Your task to perform on an android device: turn on wifi Image 0: 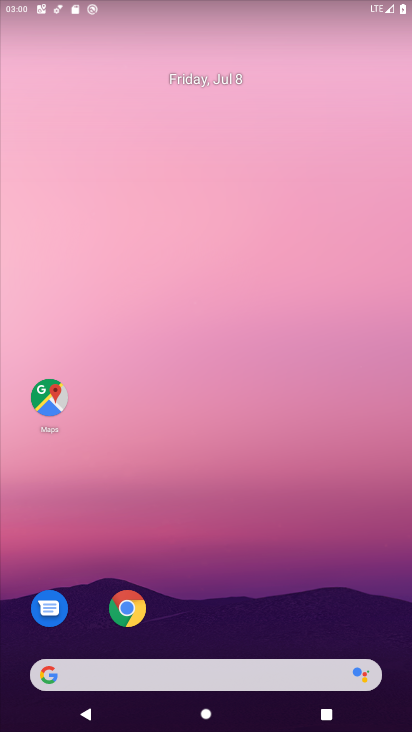
Step 0: drag from (243, 561) to (187, 199)
Your task to perform on an android device: turn on wifi Image 1: 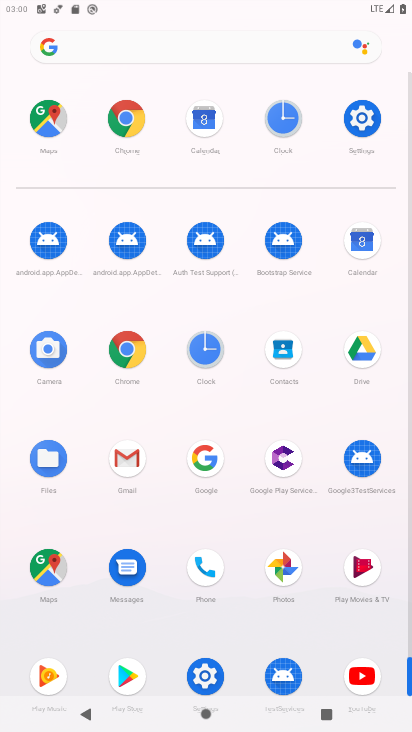
Step 1: click (355, 119)
Your task to perform on an android device: turn on wifi Image 2: 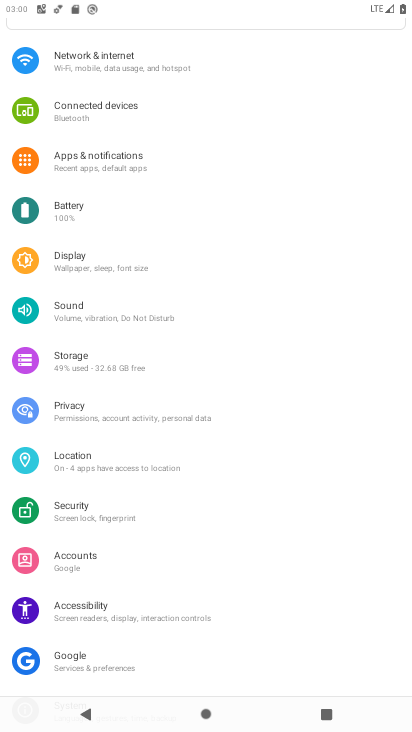
Step 2: click (101, 61)
Your task to perform on an android device: turn on wifi Image 3: 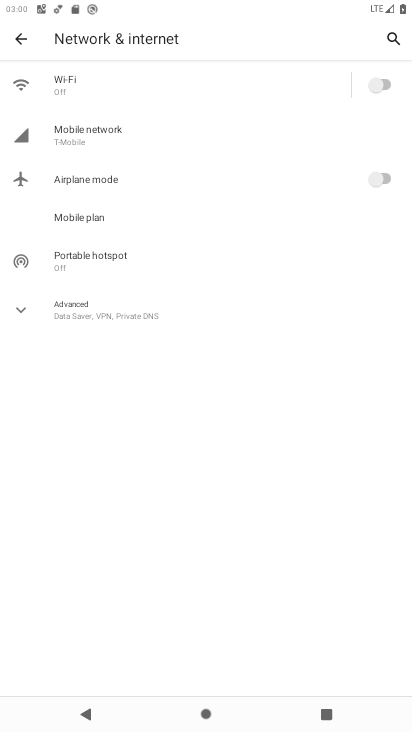
Step 3: click (111, 93)
Your task to perform on an android device: turn on wifi Image 4: 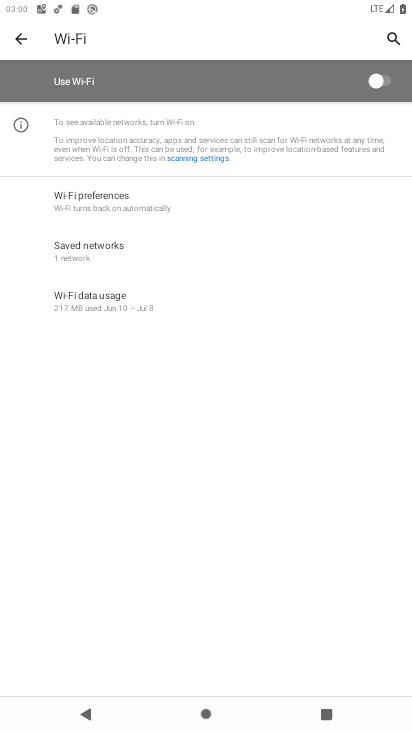
Step 4: click (380, 71)
Your task to perform on an android device: turn on wifi Image 5: 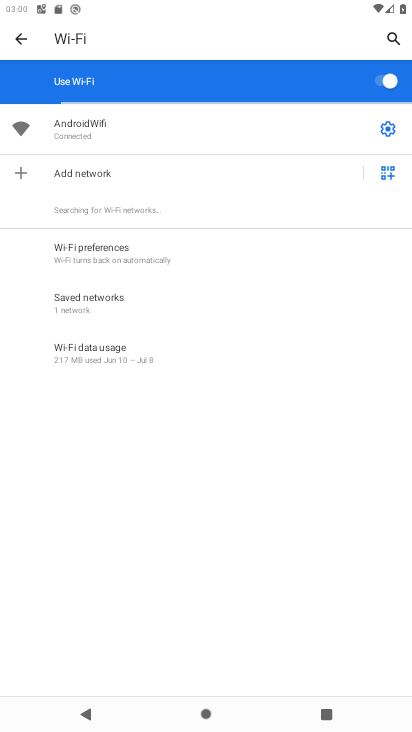
Step 5: task complete